Your task to perform on an android device: check storage Image 0: 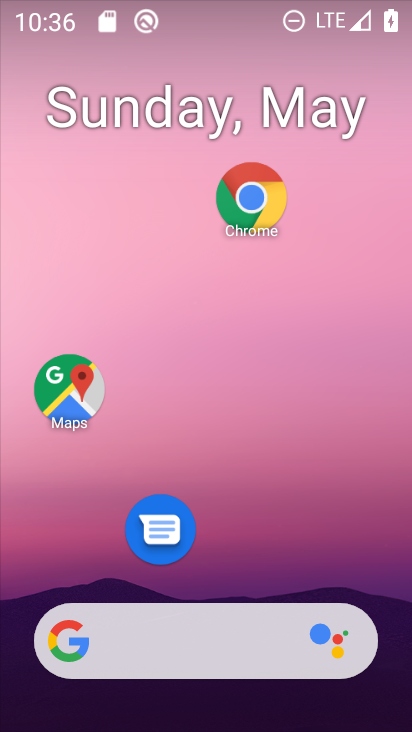
Step 0: drag from (266, 539) to (239, 51)
Your task to perform on an android device: check storage Image 1: 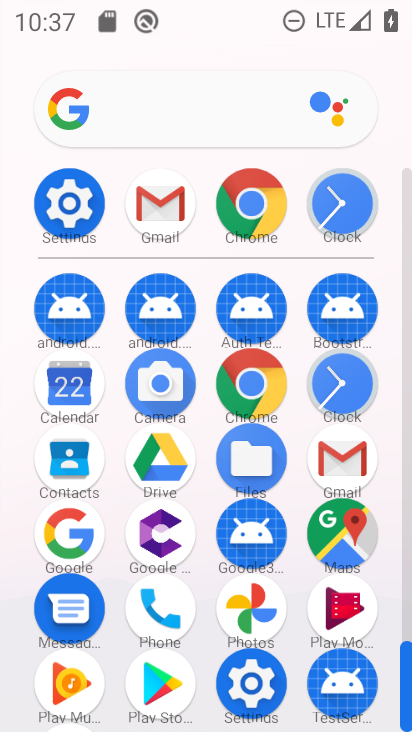
Step 1: click (67, 210)
Your task to perform on an android device: check storage Image 2: 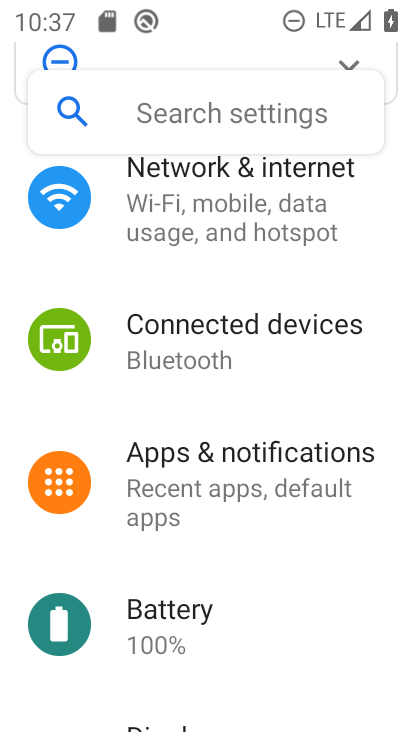
Step 2: drag from (252, 623) to (261, 354)
Your task to perform on an android device: check storage Image 3: 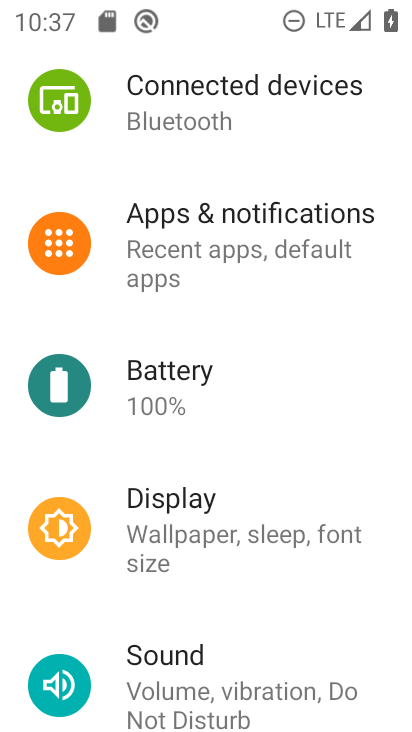
Step 3: drag from (295, 567) to (300, 369)
Your task to perform on an android device: check storage Image 4: 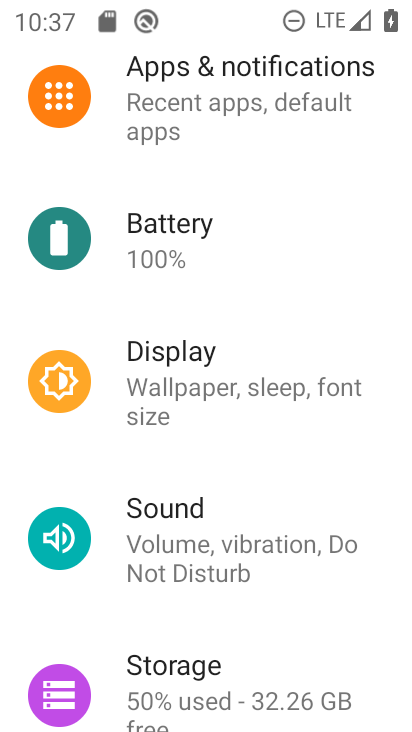
Step 4: click (236, 668)
Your task to perform on an android device: check storage Image 5: 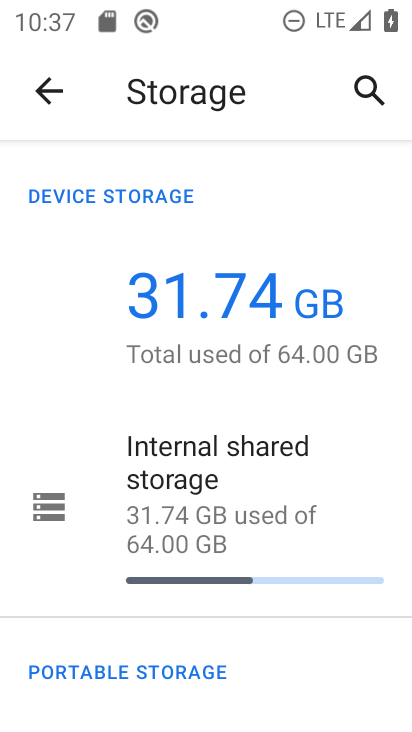
Step 5: task complete